Your task to perform on an android device: Show me popular videos on Youtube Image 0: 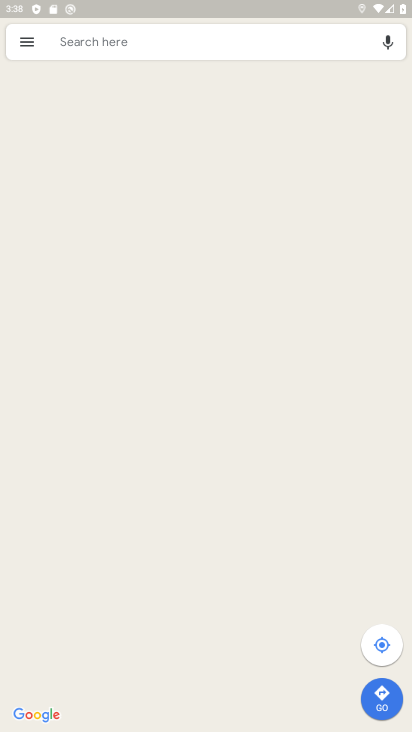
Step 0: press home button
Your task to perform on an android device: Show me popular videos on Youtube Image 1: 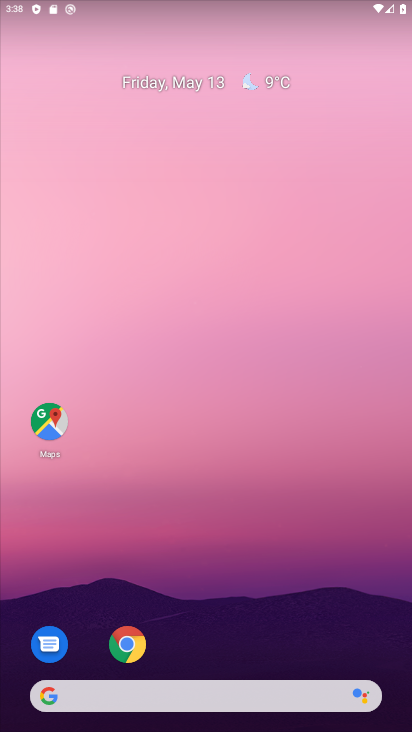
Step 1: drag from (251, 621) to (225, 203)
Your task to perform on an android device: Show me popular videos on Youtube Image 2: 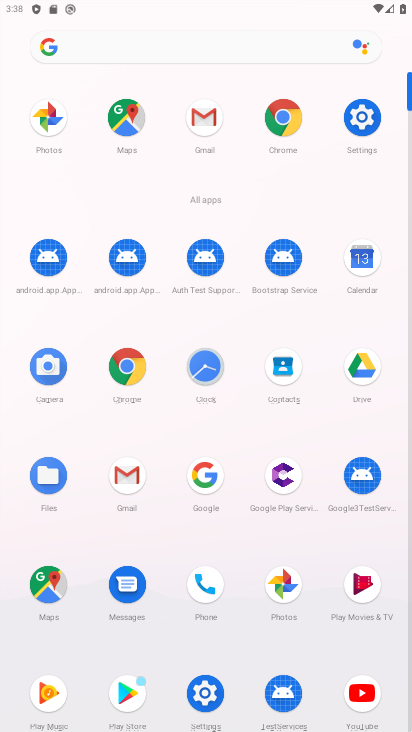
Step 2: click (364, 695)
Your task to perform on an android device: Show me popular videos on Youtube Image 3: 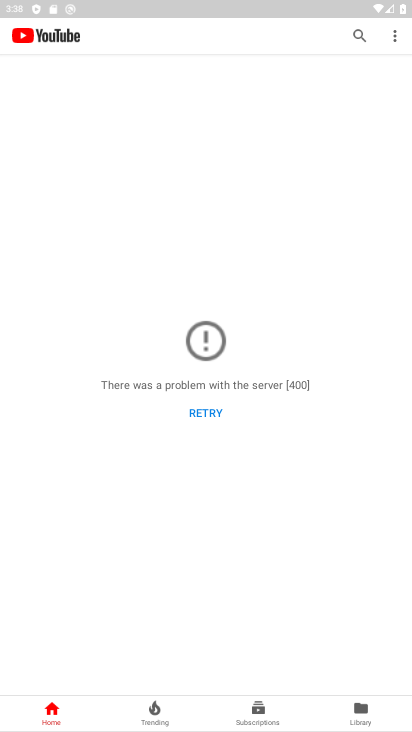
Step 3: click (157, 716)
Your task to perform on an android device: Show me popular videos on Youtube Image 4: 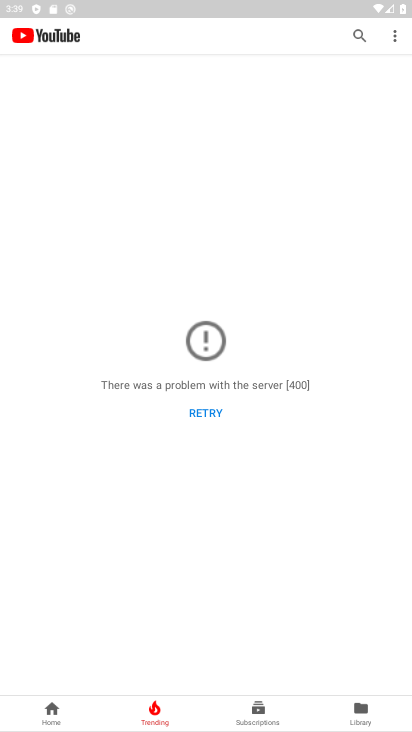
Step 4: task complete